Your task to perform on an android device: choose inbox layout in the gmail app Image 0: 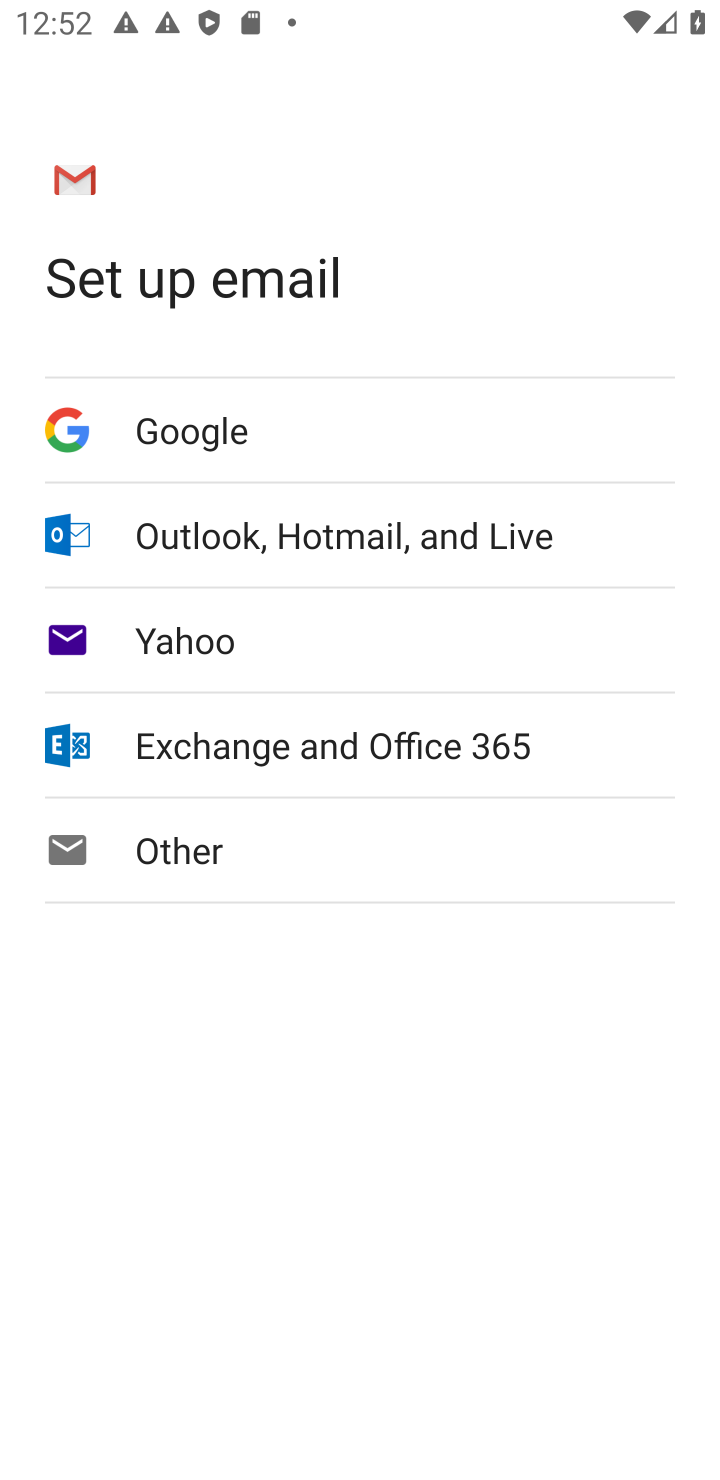
Step 0: press back button
Your task to perform on an android device: choose inbox layout in the gmail app Image 1: 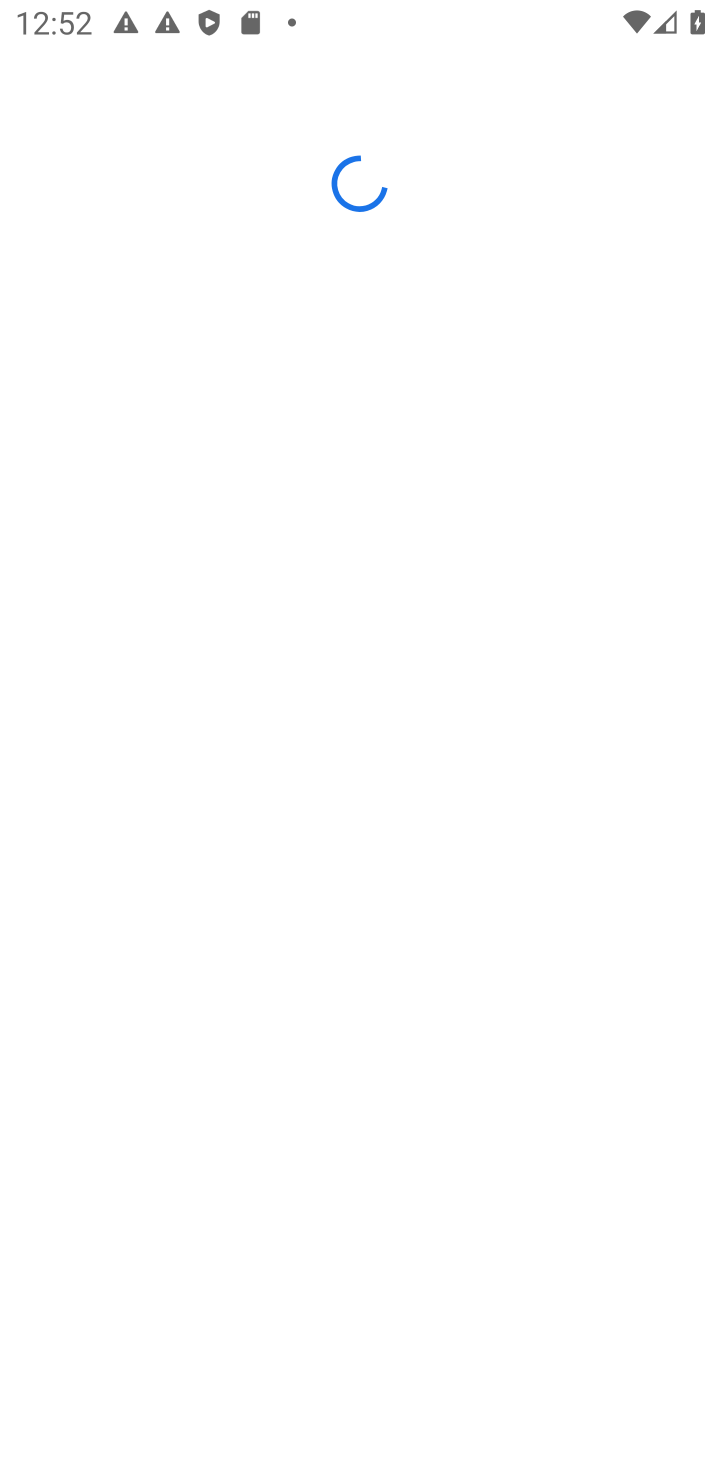
Step 1: press back button
Your task to perform on an android device: choose inbox layout in the gmail app Image 2: 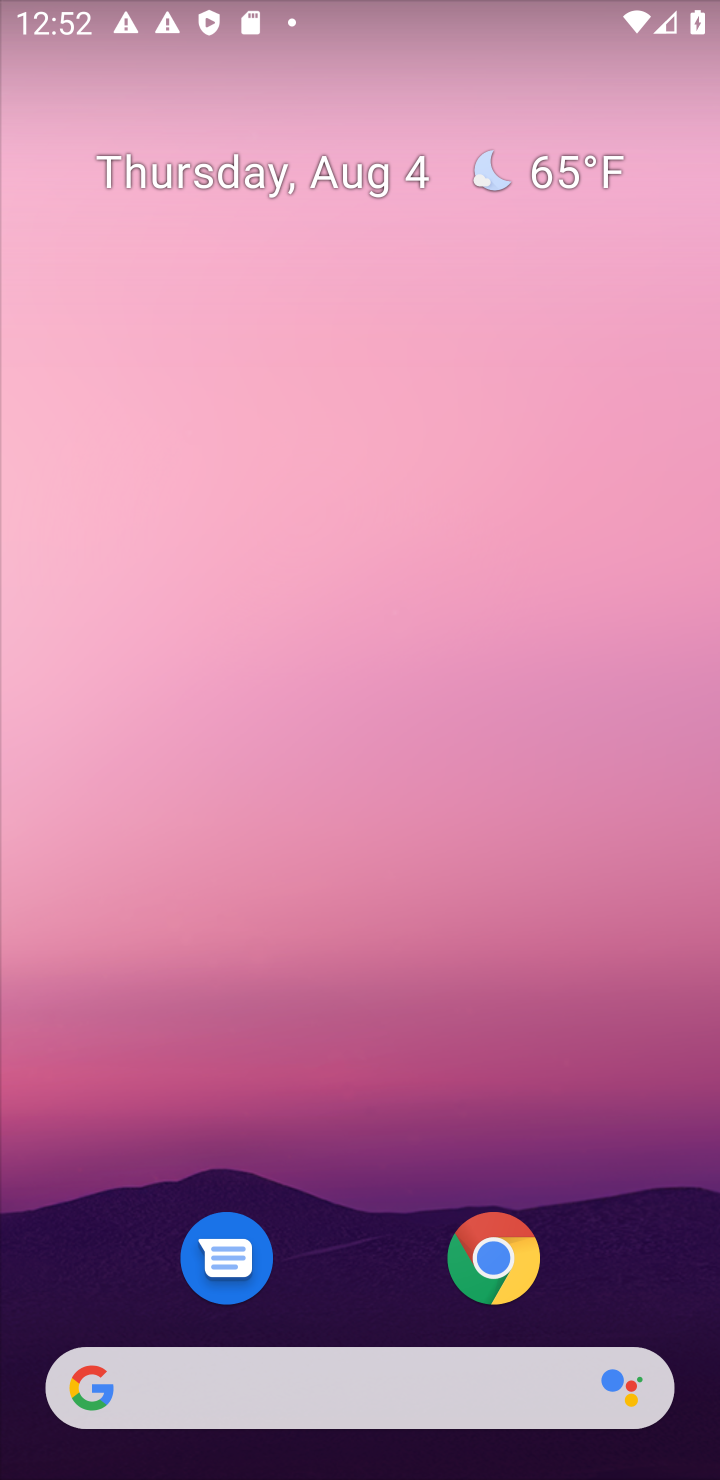
Step 2: click (480, 1264)
Your task to perform on an android device: choose inbox layout in the gmail app Image 3: 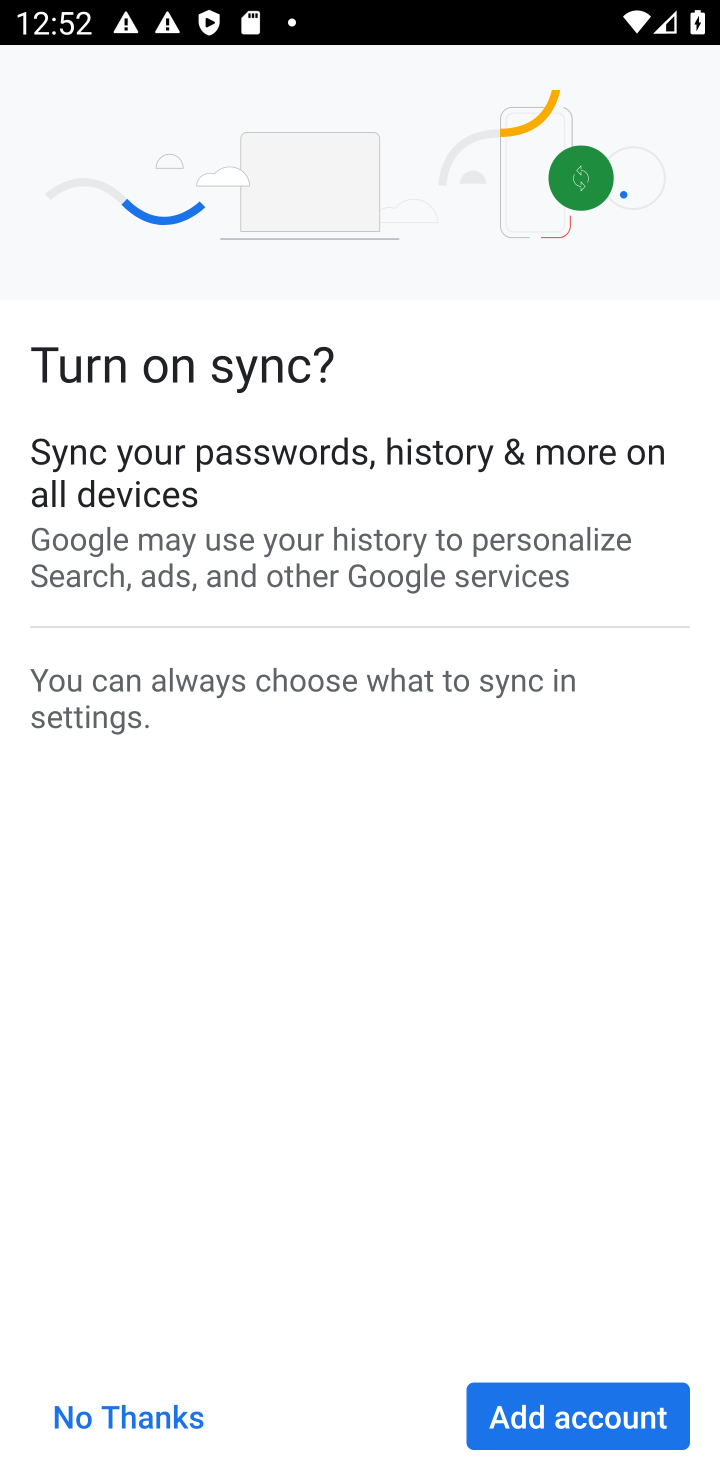
Step 3: press back button
Your task to perform on an android device: choose inbox layout in the gmail app Image 4: 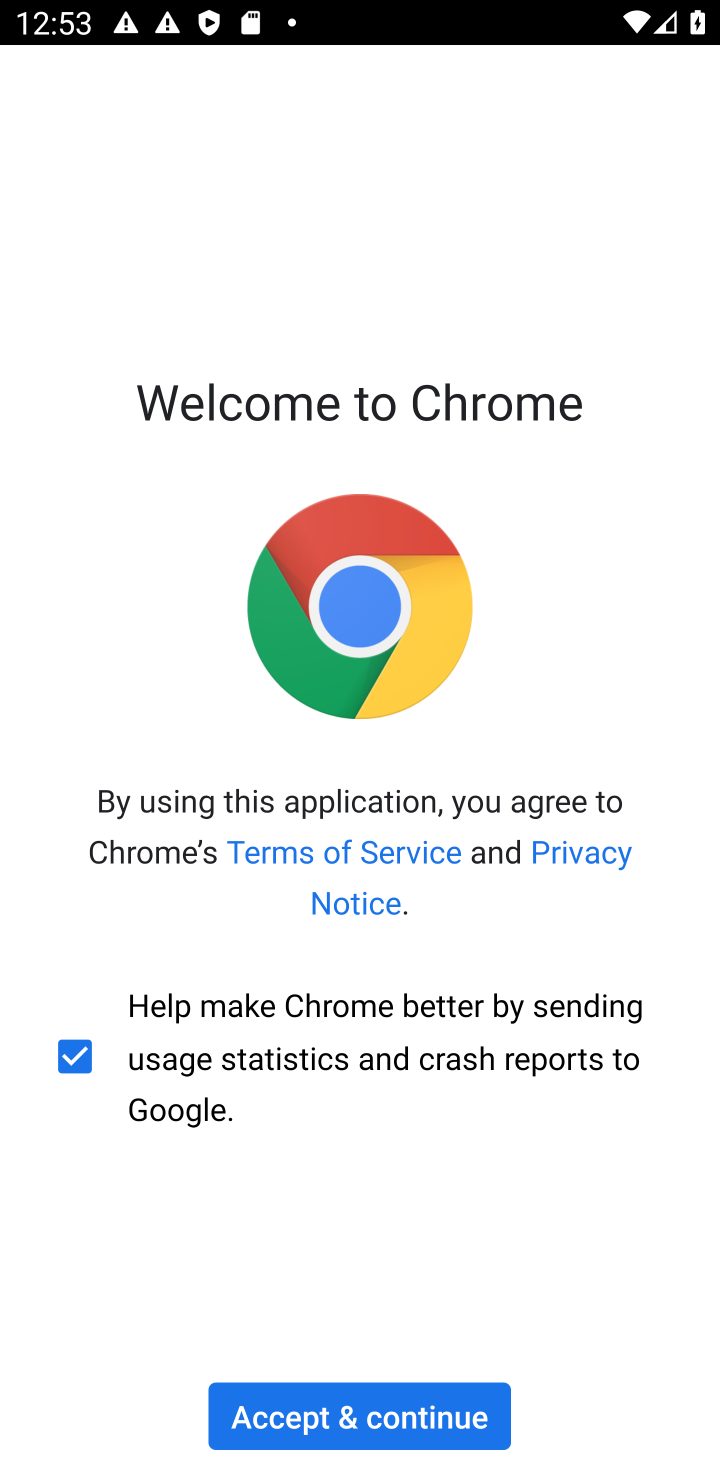
Step 4: press back button
Your task to perform on an android device: choose inbox layout in the gmail app Image 5: 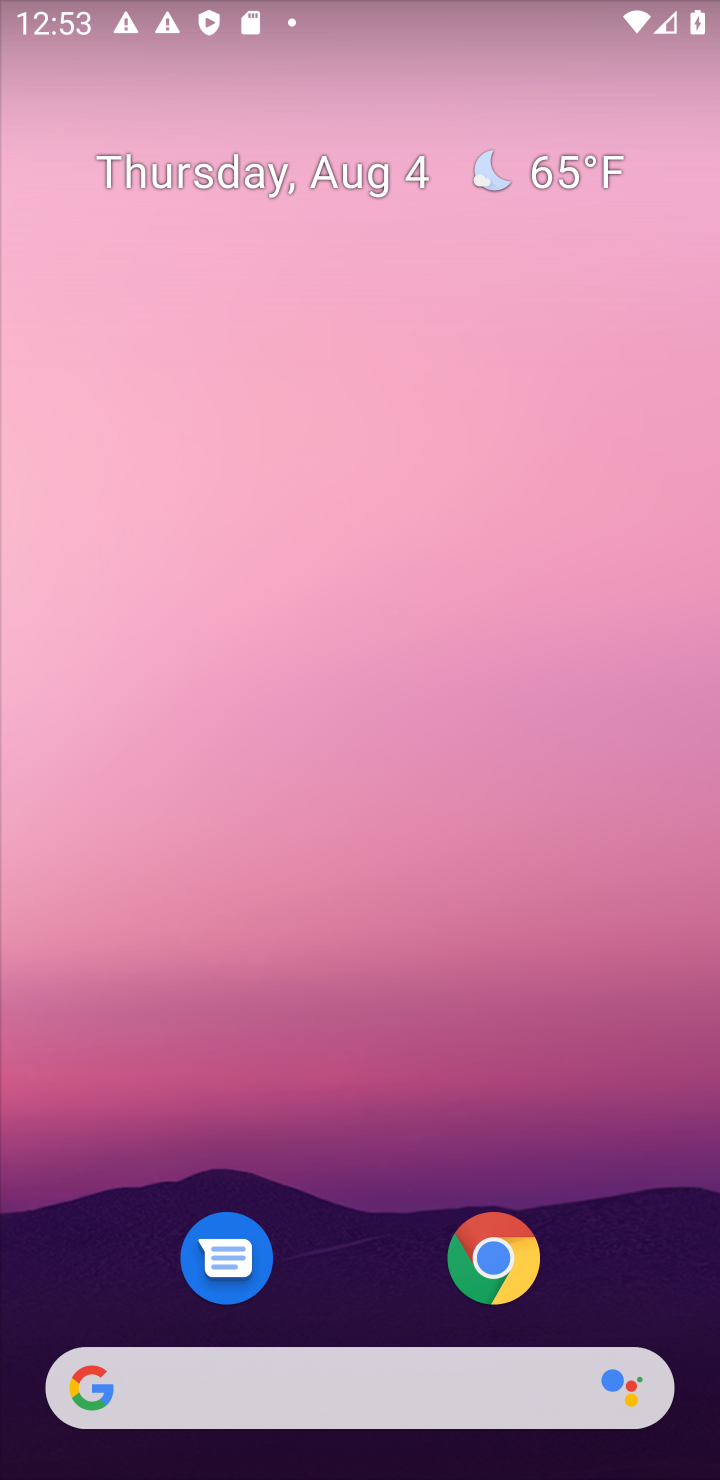
Step 5: drag from (349, 1279) to (353, 424)
Your task to perform on an android device: choose inbox layout in the gmail app Image 6: 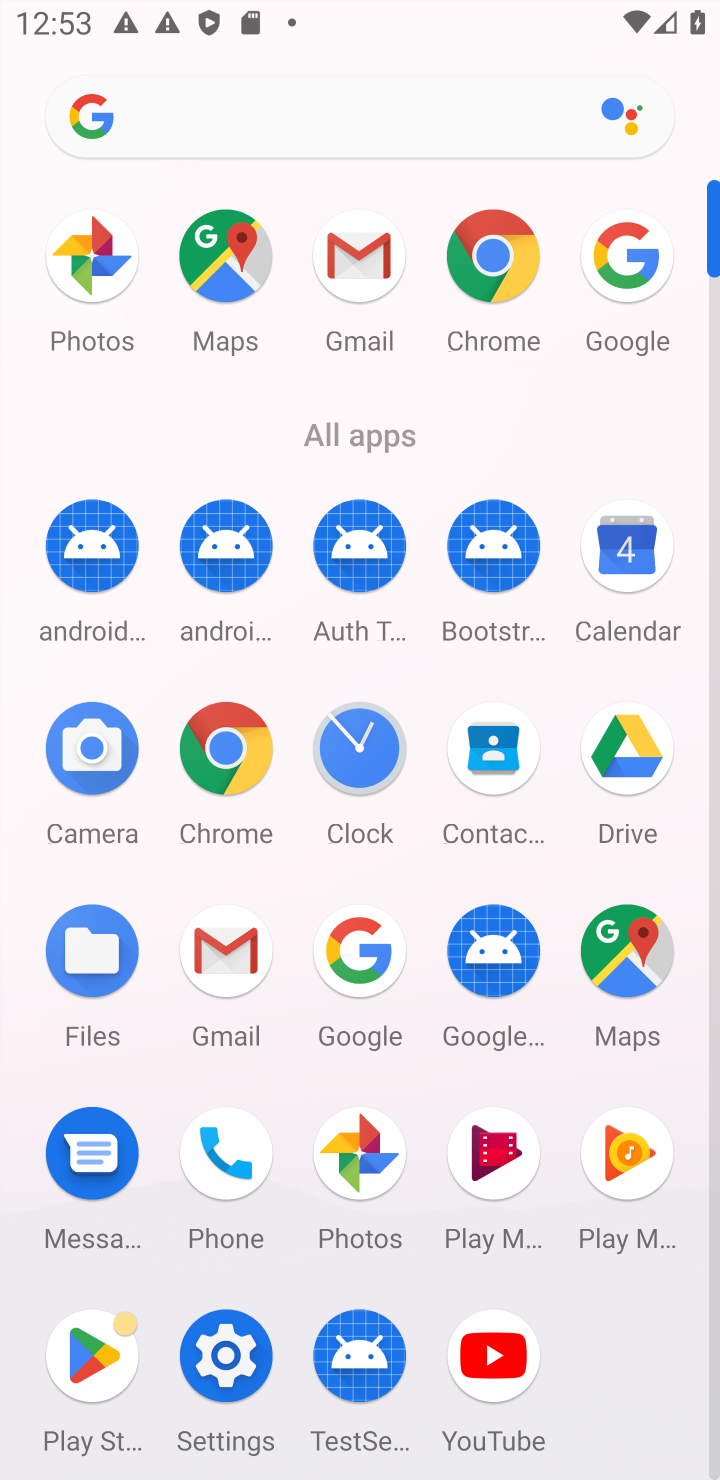
Step 6: click (358, 267)
Your task to perform on an android device: choose inbox layout in the gmail app Image 7: 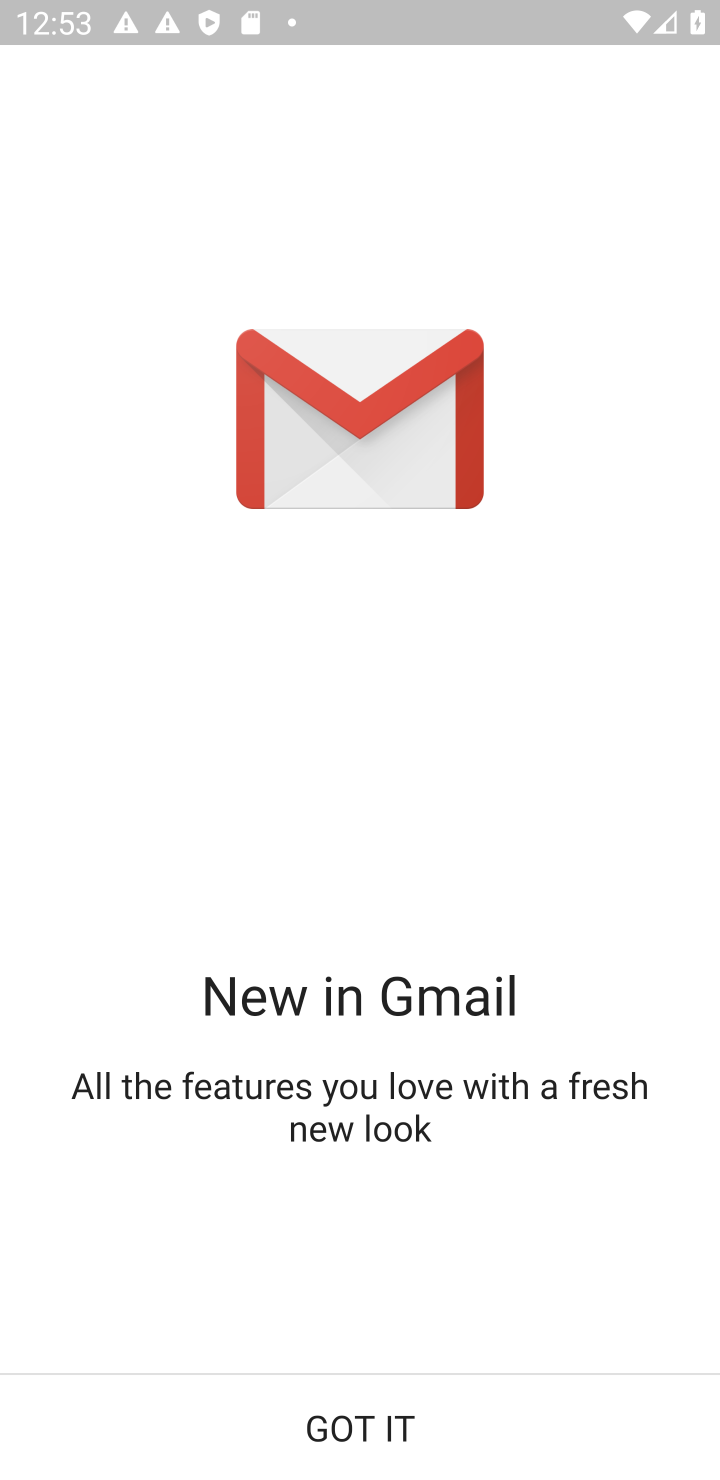
Step 7: click (336, 1414)
Your task to perform on an android device: choose inbox layout in the gmail app Image 8: 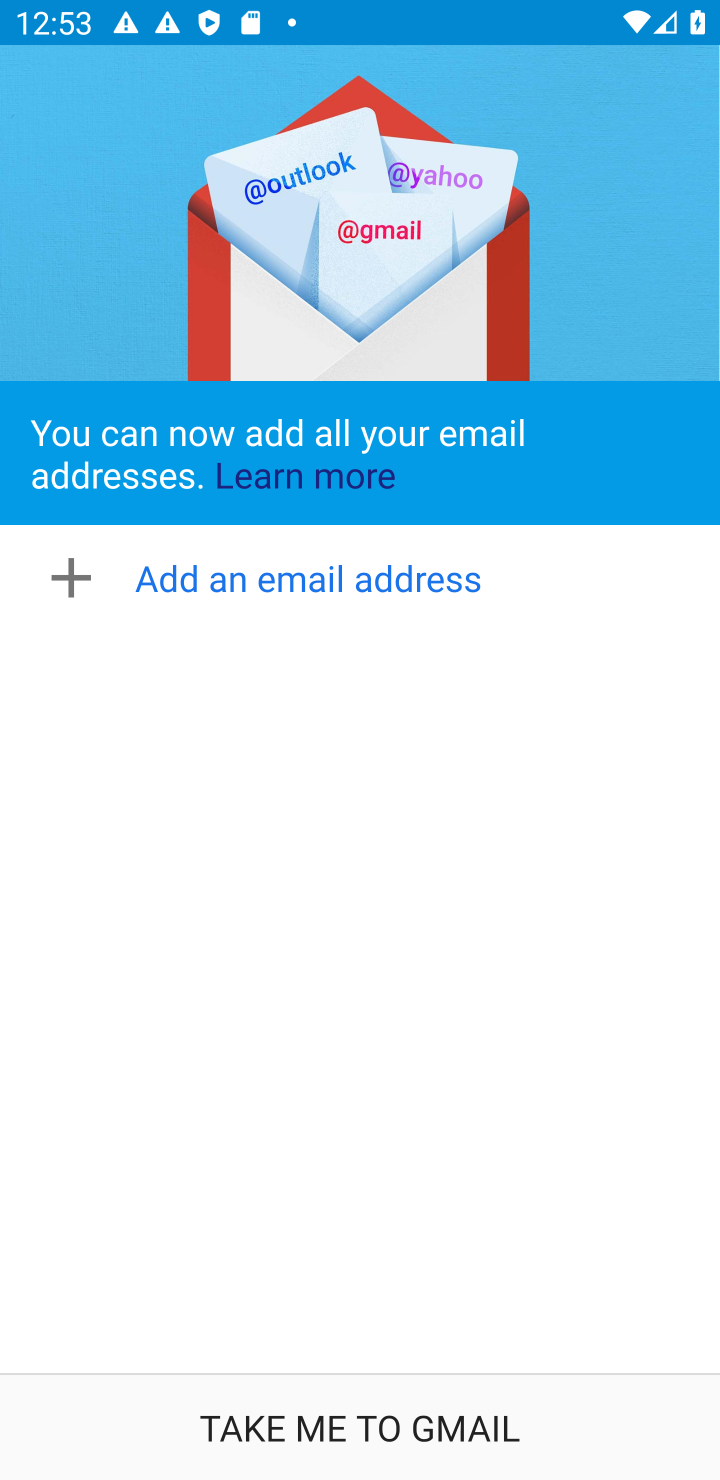
Step 8: click (336, 1414)
Your task to perform on an android device: choose inbox layout in the gmail app Image 9: 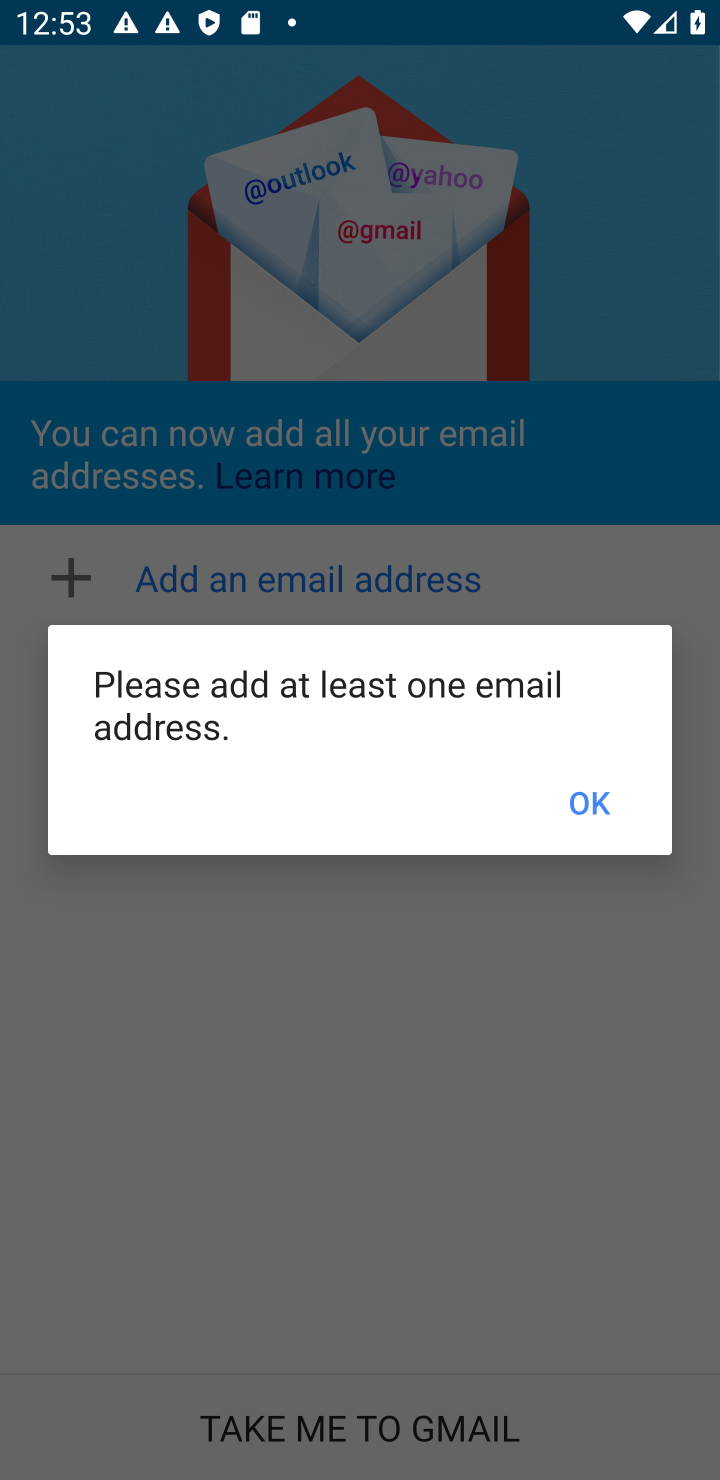
Step 9: click (595, 800)
Your task to perform on an android device: choose inbox layout in the gmail app Image 10: 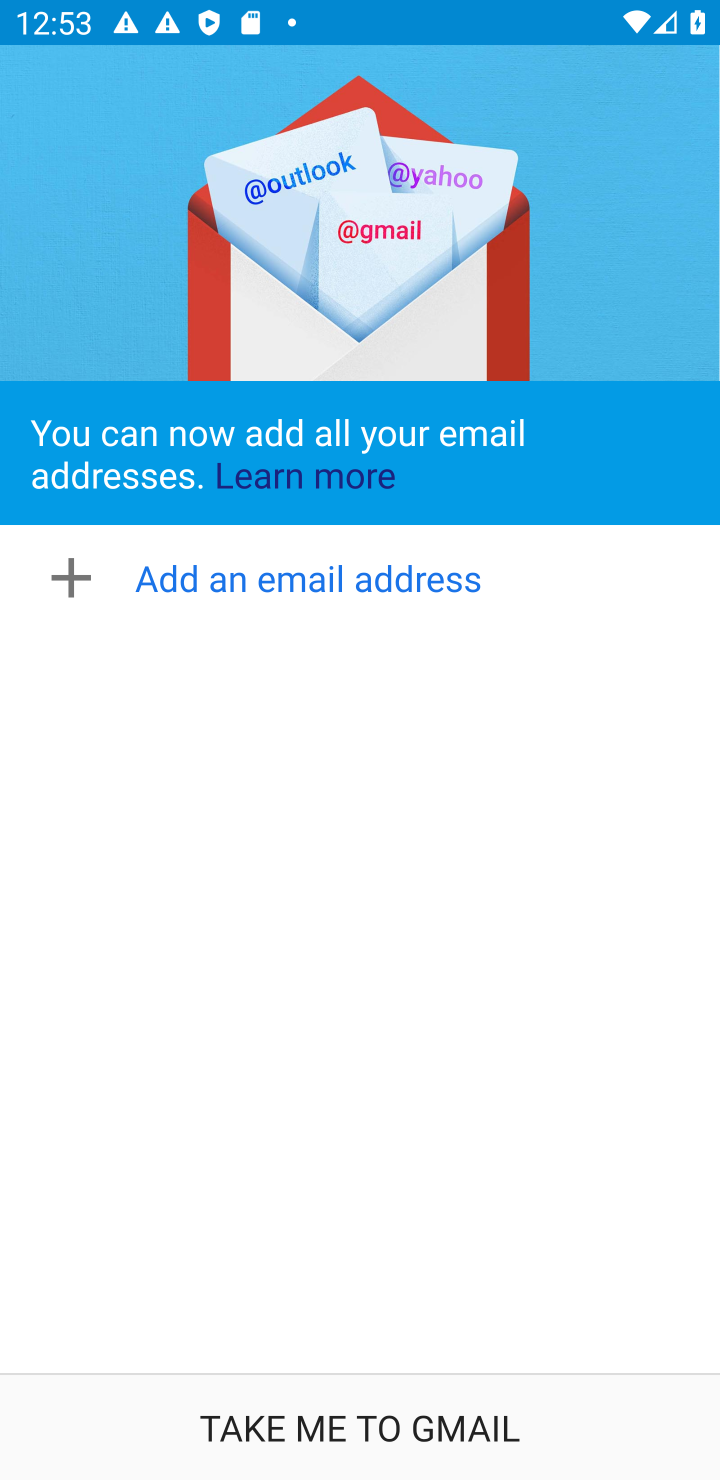
Step 10: task complete